Your task to perform on an android device: turn on airplane mode Image 0: 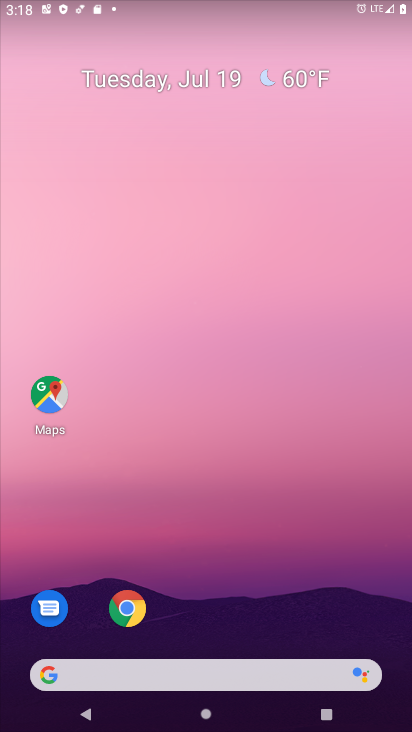
Step 0: drag from (331, 521) to (335, 0)
Your task to perform on an android device: turn on airplane mode Image 1: 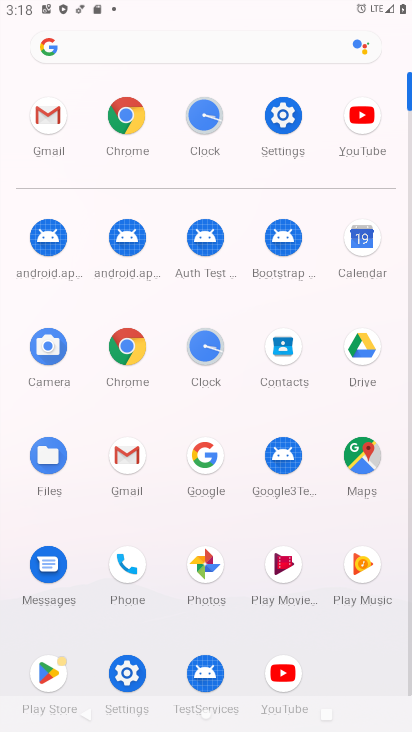
Step 1: click (286, 116)
Your task to perform on an android device: turn on airplane mode Image 2: 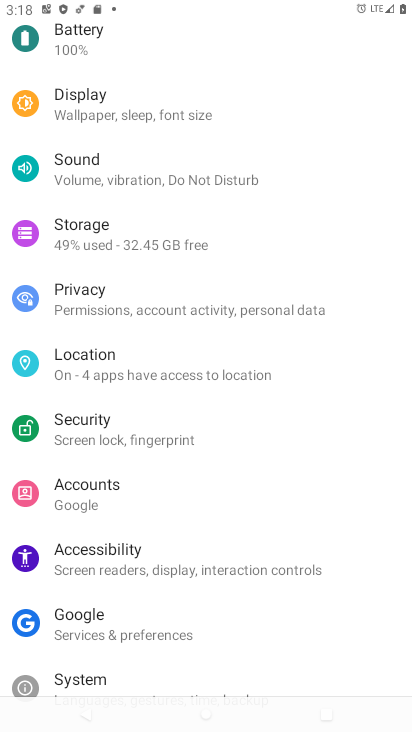
Step 2: drag from (261, 117) to (206, 512)
Your task to perform on an android device: turn on airplane mode Image 3: 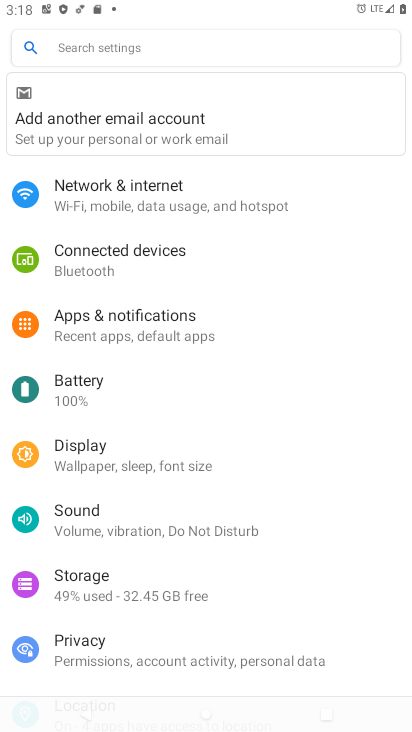
Step 3: click (132, 192)
Your task to perform on an android device: turn on airplane mode Image 4: 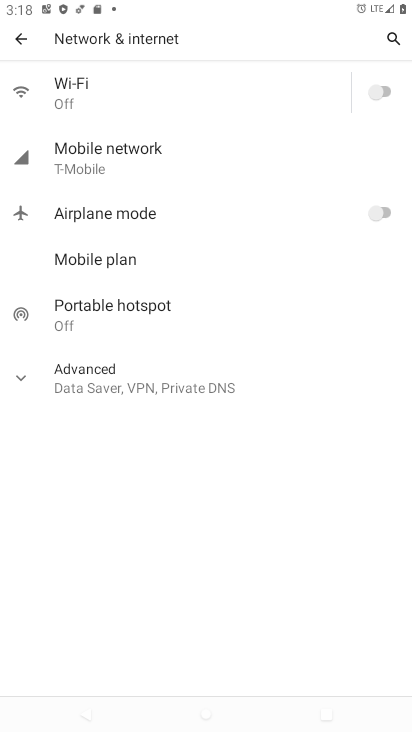
Step 4: click (375, 222)
Your task to perform on an android device: turn on airplane mode Image 5: 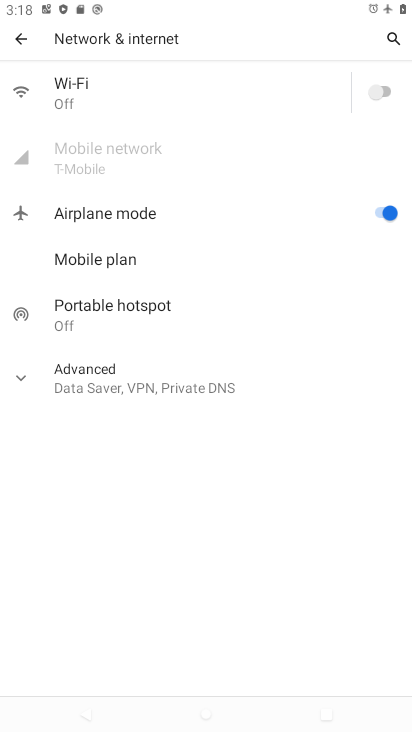
Step 5: task complete